Your task to perform on an android device: snooze an email in the gmail app Image 0: 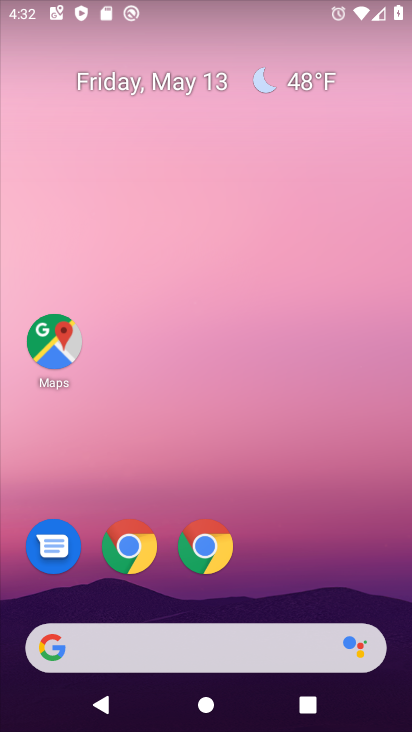
Step 0: drag from (256, 548) to (210, 13)
Your task to perform on an android device: snooze an email in the gmail app Image 1: 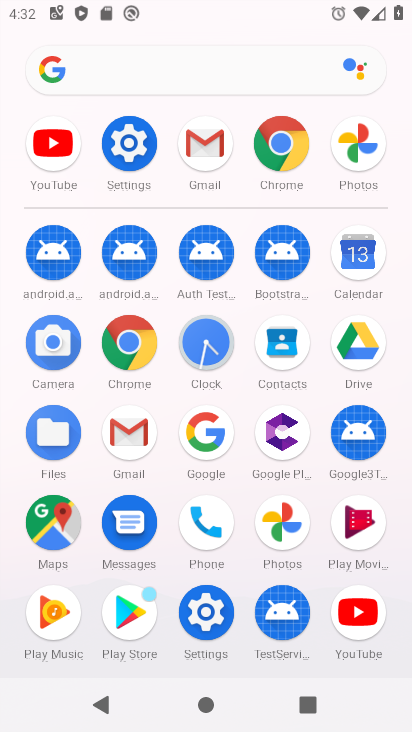
Step 1: click (134, 433)
Your task to perform on an android device: snooze an email in the gmail app Image 2: 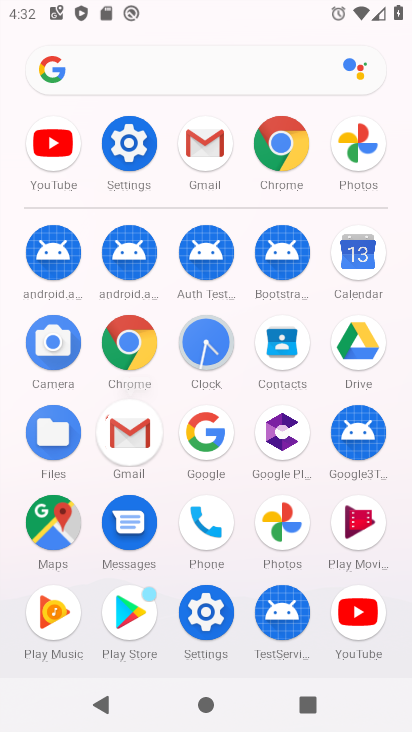
Step 2: click (133, 434)
Your task to perform on an android device: snooze an email in the gmail app Image 3: 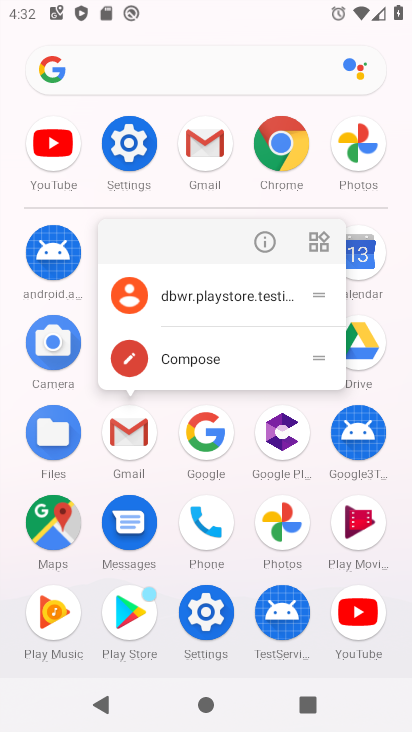
Step 3: click (133, 434)
Your task to perform on an android device: snooze an email in the gmail app Image 4: 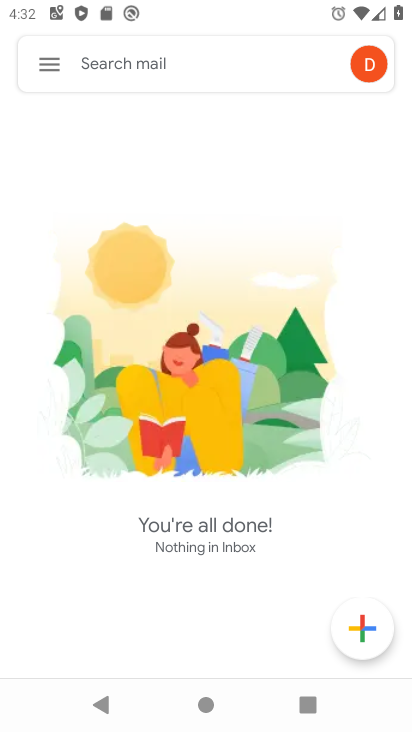
Step 4: drag from (43, 67) to (35, 107)
Your task to perform on an android device: snooze an email in the gmail app Image 5: 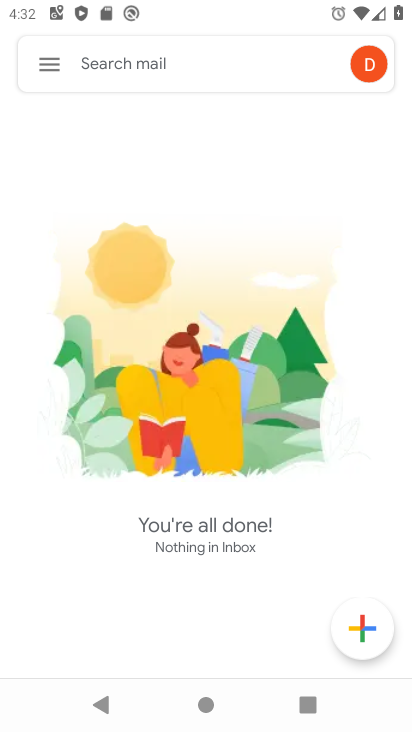
Step 5: click (37, 64)
Your task to perform on an android device: snooze an email in the gmail app Image 6: 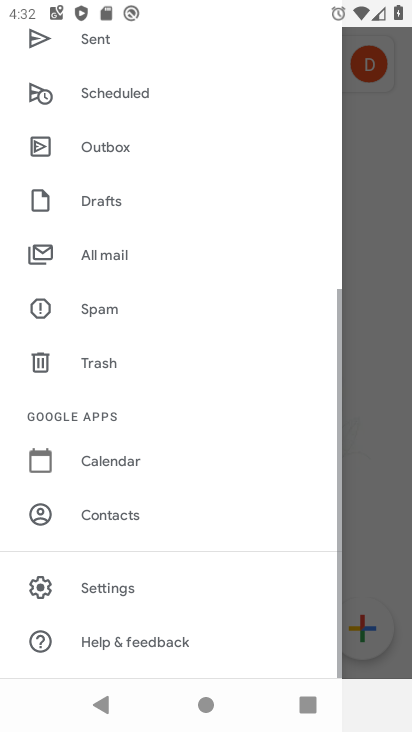
Step 6: click (44, 70)
Your task to perform on an android device: snooze an email in the gmail app Image 7: 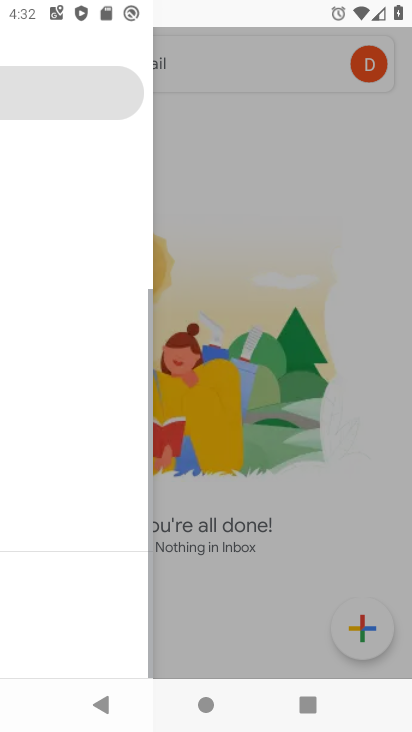
Step 7: click (47, 70)
Your task to perform on an android device: snooze an email in the gmail app Image 8: 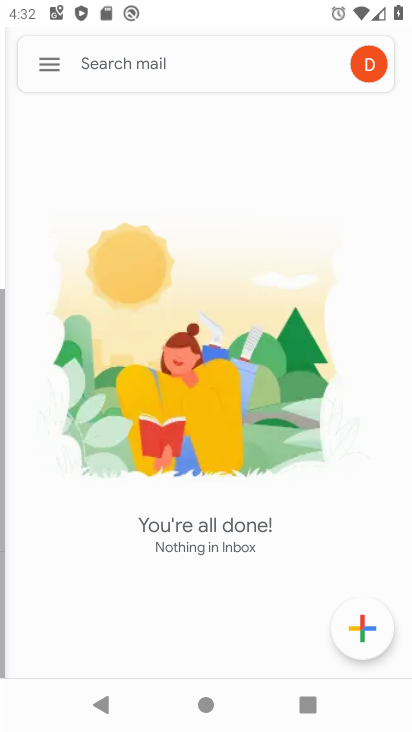
Step 8: click (52, 67)
Your task to perform on an android device: snooze an email in the gmail app Image 9: 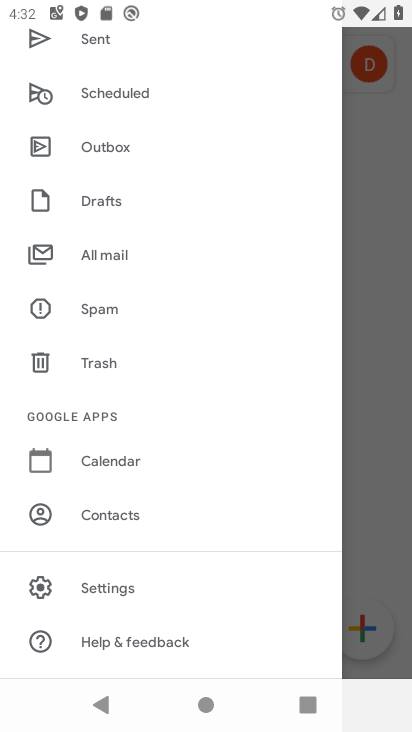
Step 9: click (100, 249)
Your task to perform on an android device: snooze an email in the gmail app Image 10: 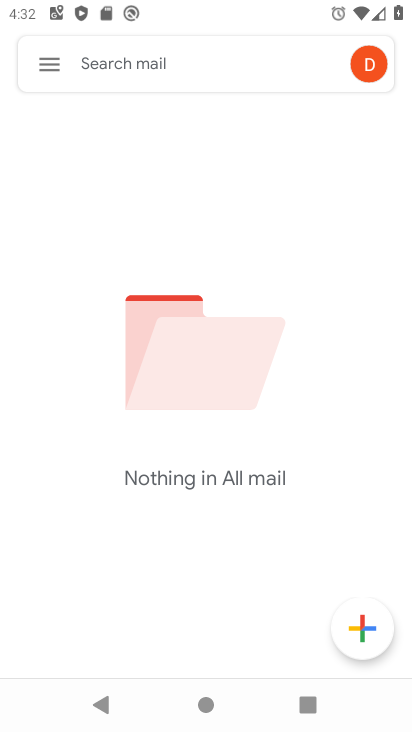
Step 10: task complete